Your task to perform on an android device: Open Chrome and go to settings Image 0: 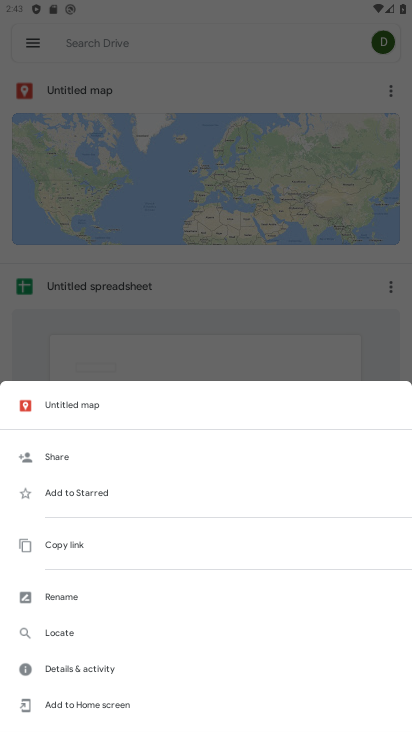
Step 0: press home button
Your task to perform on an android device: Open Chrome and go to settings Image 1: 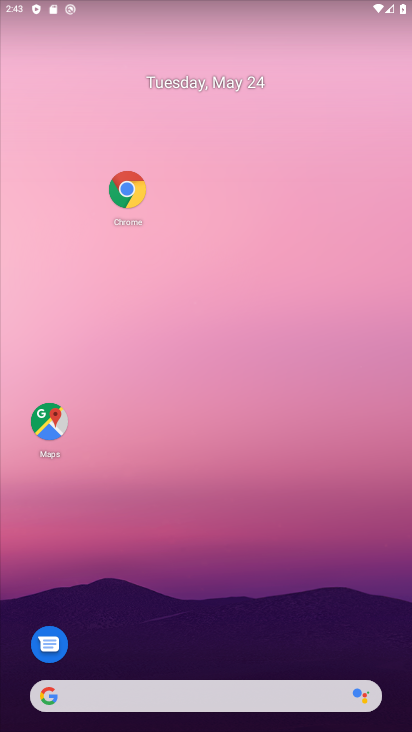
Step 1: click (131, 192)
Your task to perform on an android device: Open Chrome and go to settings Image 2: 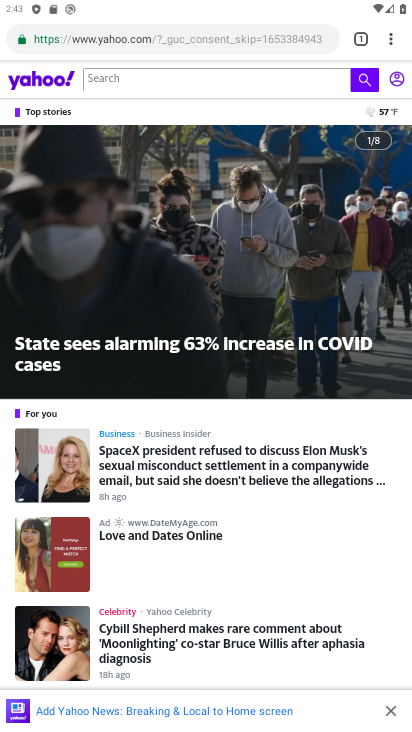
Step 2: click (385, 36)
Your task to perform on an android device: Open Chrome and go to settings Image 3: 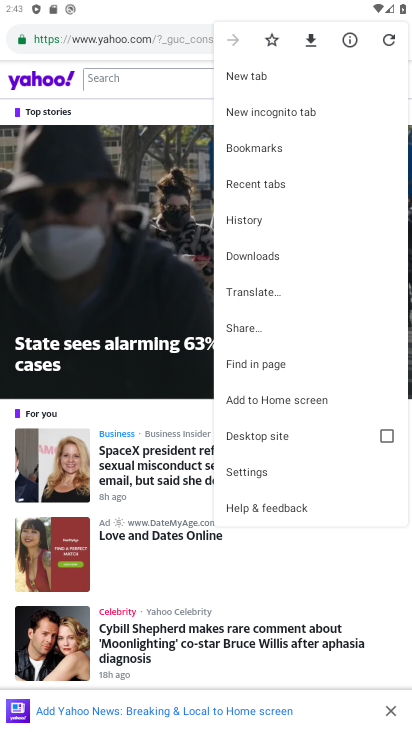
Step 3: click (268, 469)
Your task to perform on an android device: Open Chrome and go to settings Image 4: 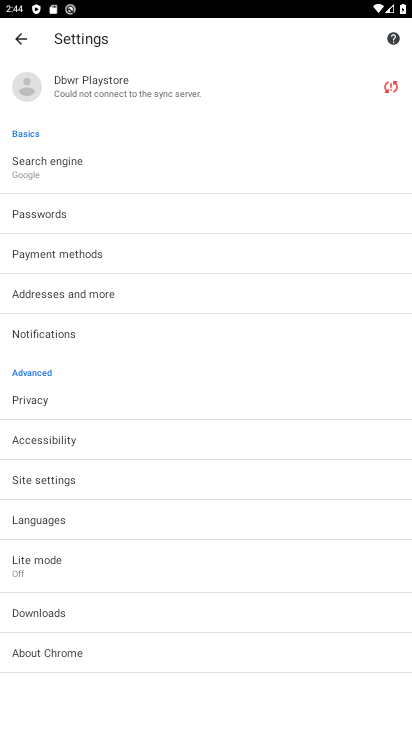
Step 4: task complete